Your task to perform on an android device: Open display settings Image 0: 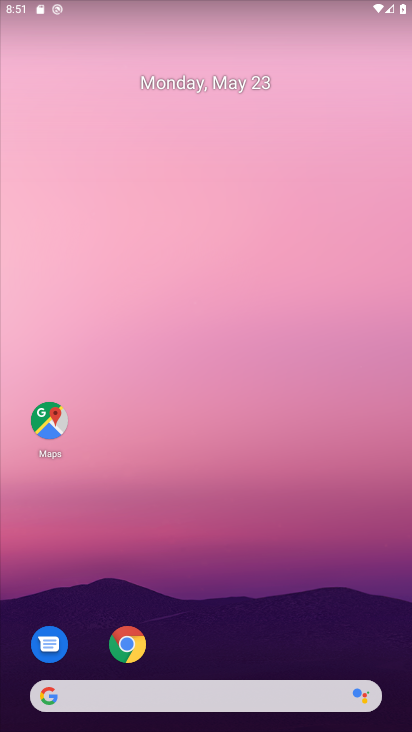
Step 0: drag from (318, 560) to (293, 26)
Your task to perform on an android device: Open display settings Image 1: 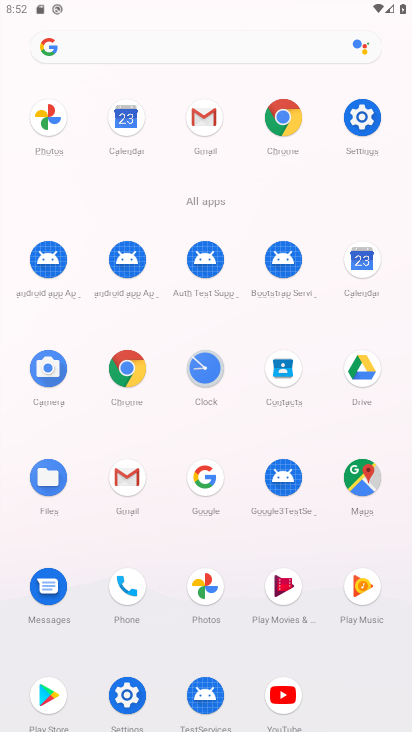
Step 1: click (368, 126)
Your task to perform on an android device: Open display settings Image 2: 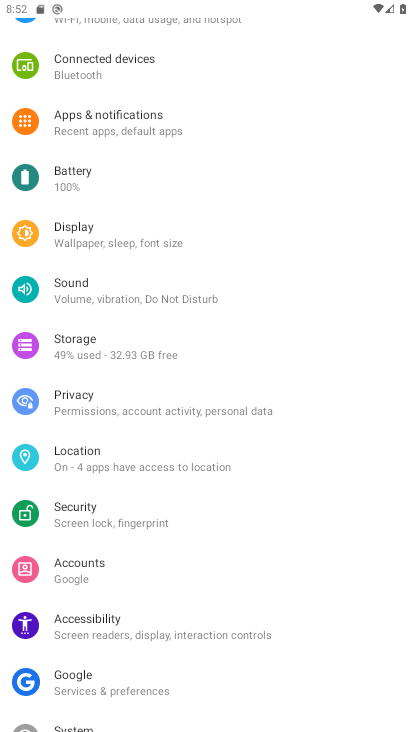
Step 2: click (115, 228)
Your task to perform on an android device: Open display settings Image 3: 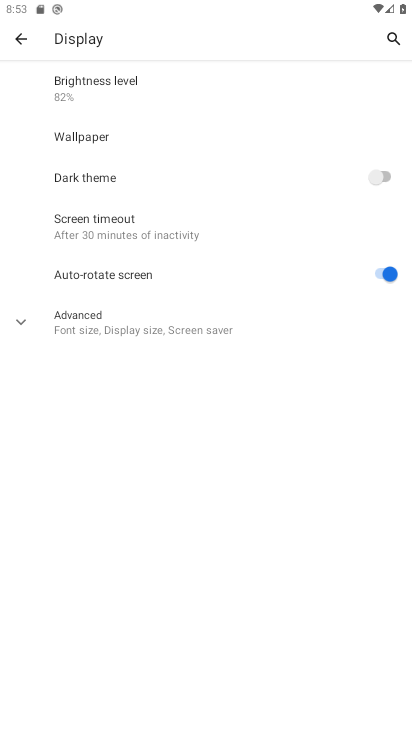
Step 3: task complete